Your task to perform on an android device: Check the news Image 0: 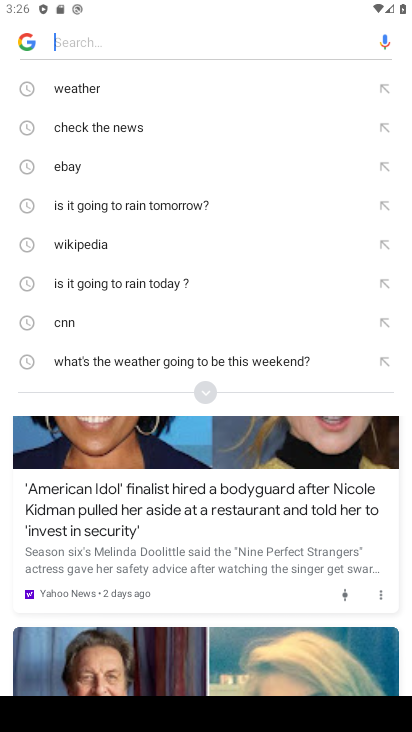
Step 0: click (136, 127)
Your task to perform on an android device: Check the news Image 1: 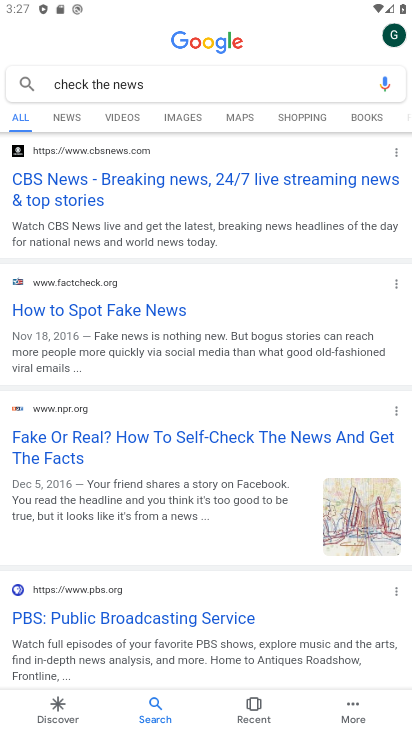
Step 1: task complete